Your task to perform on an android device: toggle data saver in the chrome app Image 0: 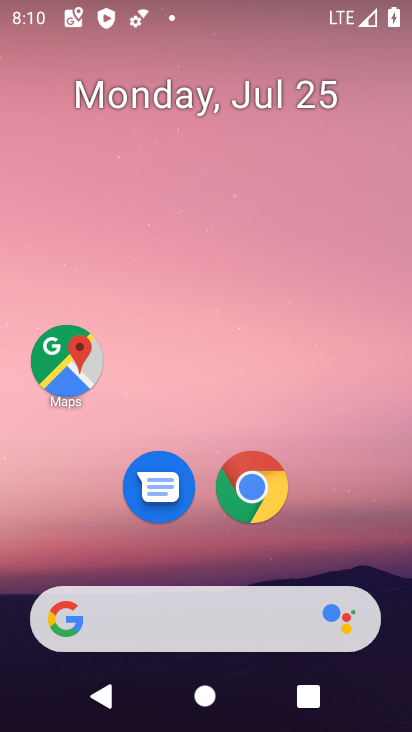
Step 0: click (236, 508)
Your task to perform on an android device: toggle data saver in the chrome app Image 1: 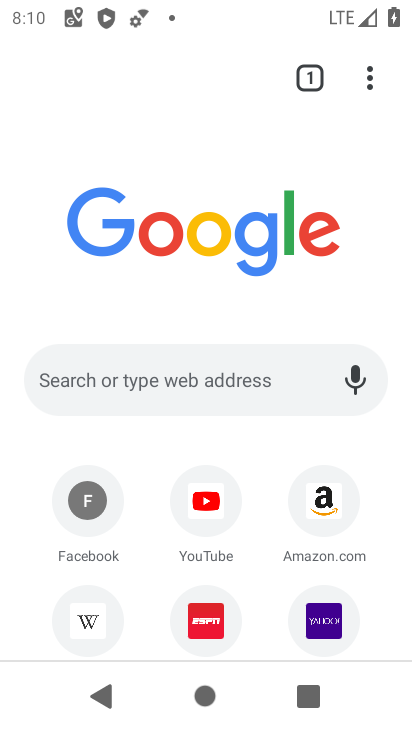
Step 1: drag from (369, 77) to (95, 535)
Your task to perform on an android device: toggle data saver in the chrome app Image 2: 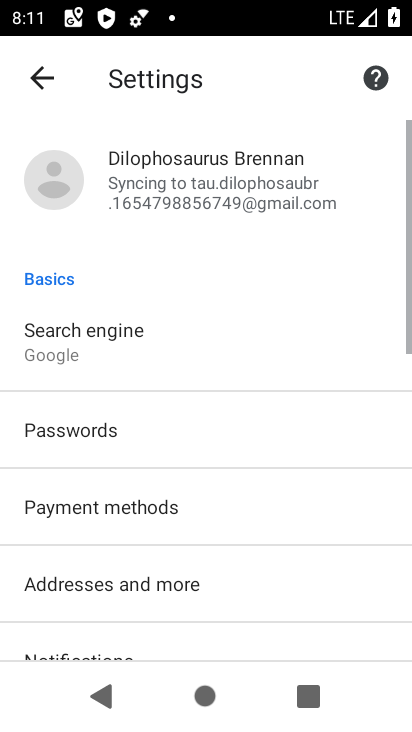
Step 2: drag from (132, 562) to (212, 126)
Your task to perform on an android device: toggle data saver in the chrome app Image 3: 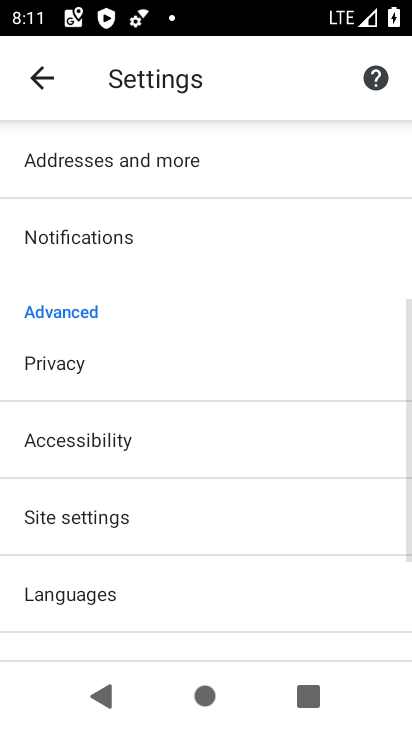
Step 3: drag from (173, 583) to (220, 147)
Your task to perform on an android device: toggle data saver in the chrome app Image 4: 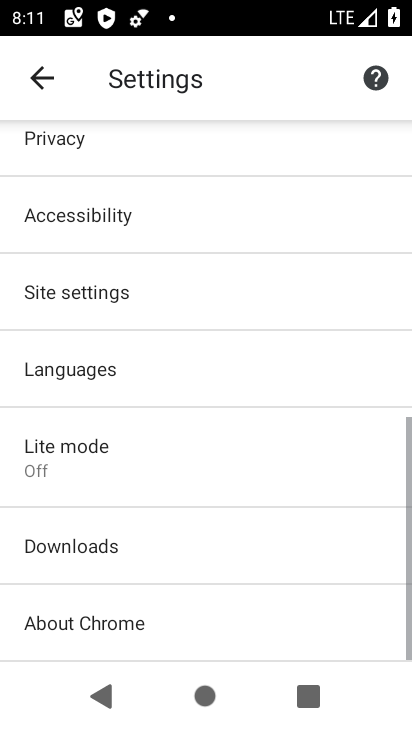
Step 4: click (128, 475)
Your task to perform on an android device: toggle data saver in the chrome app Image 5: 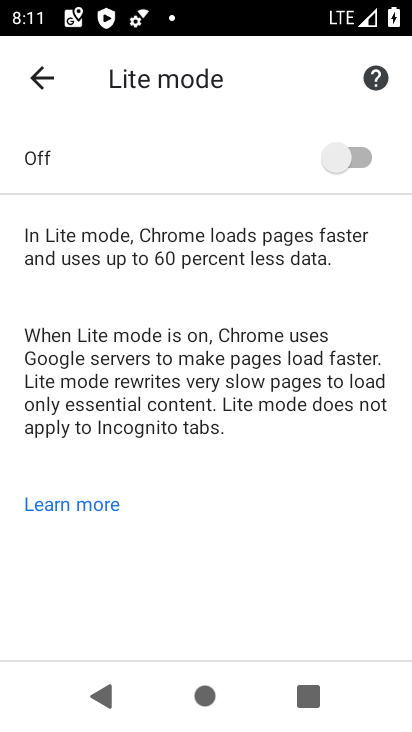
Step 5: click (356, 147)
Your task to perform on an android device: toggle data saver in the chrome app Image 6: 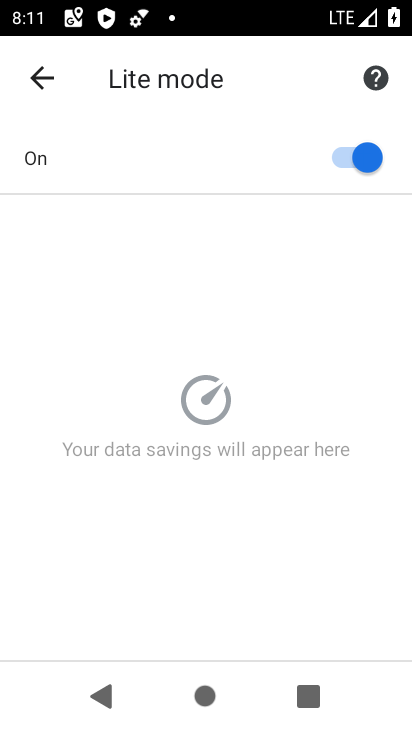
Step 6: task complete